Your task to perform on an android device: Open Youtube and go to the subscriptions tab Image 0: 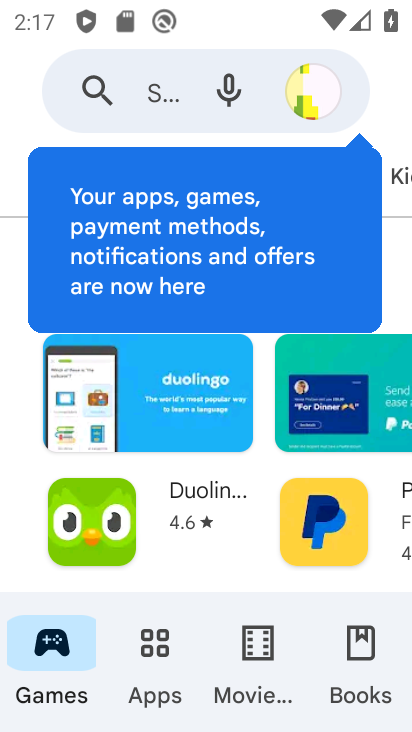
Step 0: press home button
Your task to perform on an android device: Open Youtube and go to the subscriptions tab Image 1: 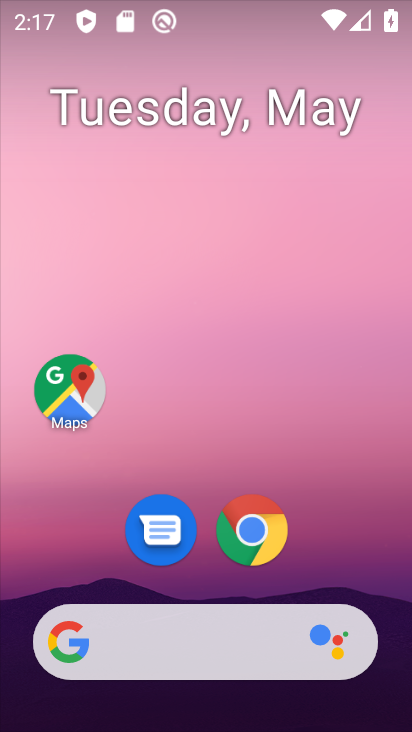
Step 1: drag from (206, 570) to (191, 20)
Your task to perform on an android device: Open Youtube and go to the subscriptions tab Image 2: 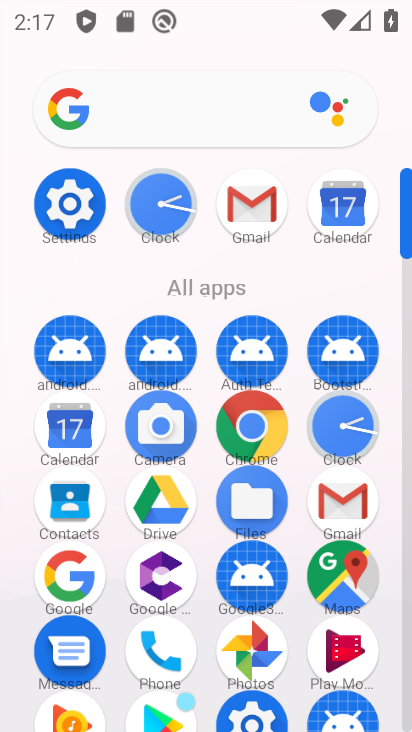
Step 2: drag from (187, 517) to (215, 147)
Your task to perform on an android device: Open Youtube and go to the subscriptions tab Image 3: 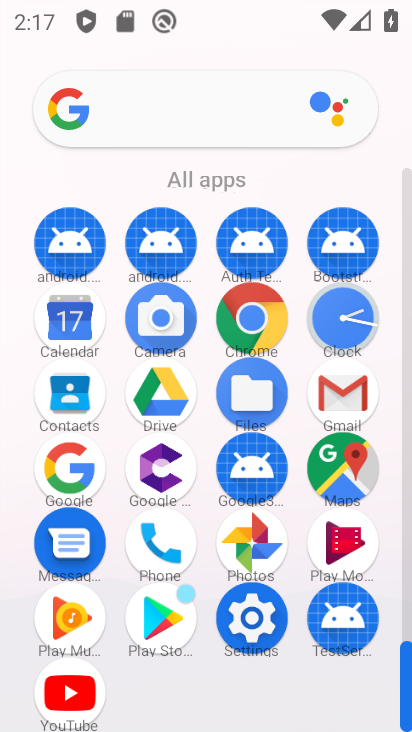
Step 3: click (54, 666)
Your task to perform on an android device: Open Youtube and go to the subscriptions tab Image 4: 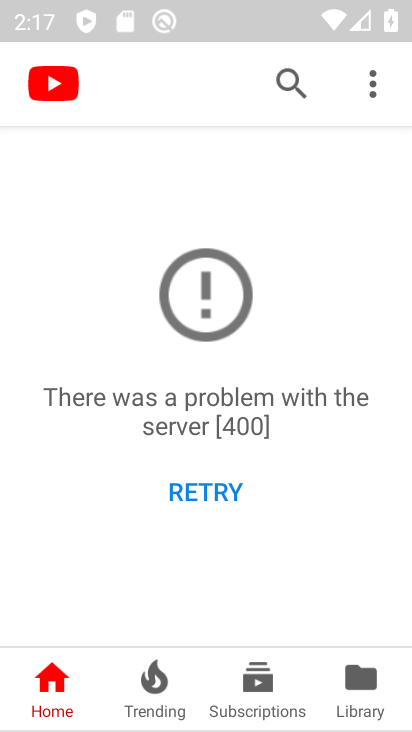
Step 4: click (256, 686)
Your task to perform on an android device: Open Youtube and go to the subscriptions tab Image 5: 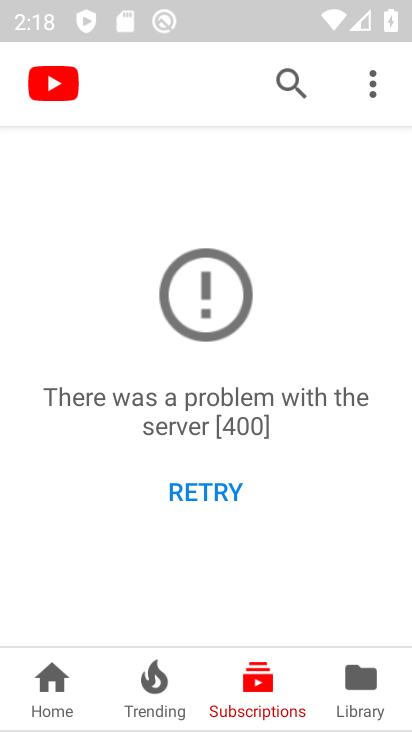
Step 5: task complete